Your task to perform on an android device: turn on showing notifications on the lock screen Image 0: 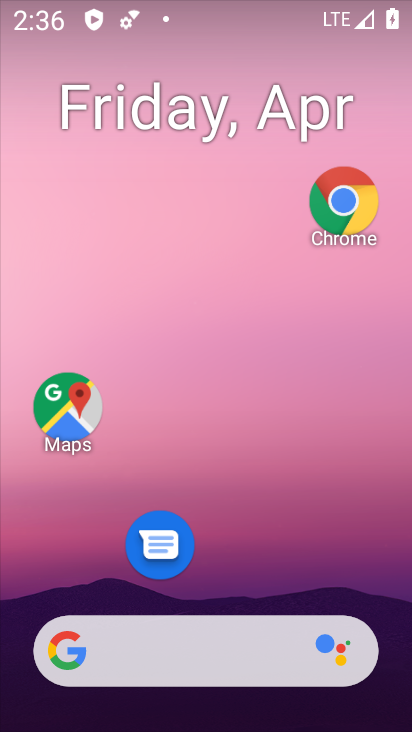
Step 0: click (250, 364)
Your task to perform on an android device: turn on showing notifications on the lock screen Image 1: 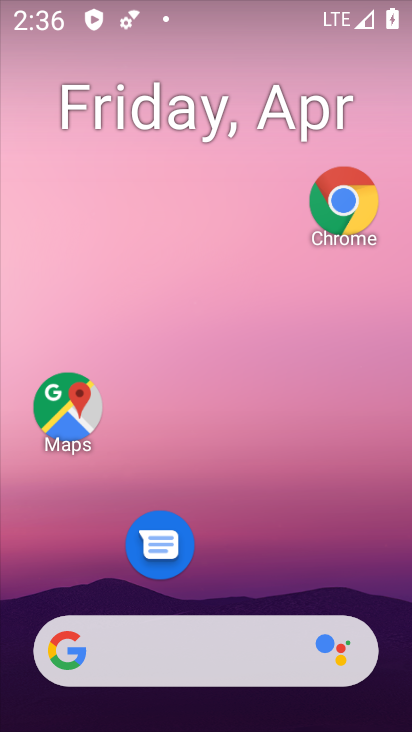
Step 1: drag from (227, 565) to (302, 21)
Your task to perform on an android device: turn on showing notifications on the lock screen Image 2: 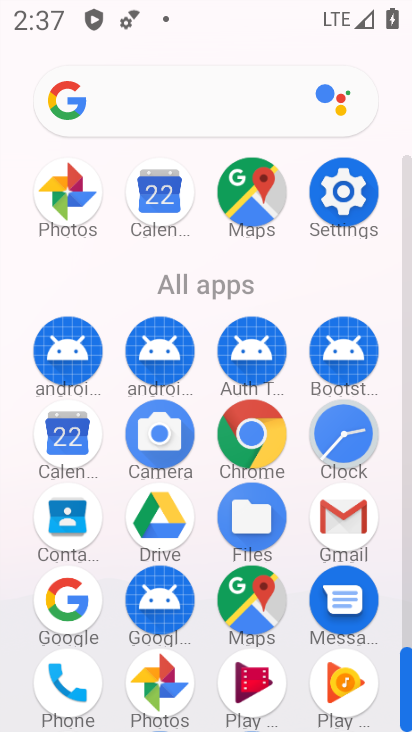
Step 2: click (346, 209)
Your task to perform on an android device: turn on showing notifications on the lock screen Image 3: 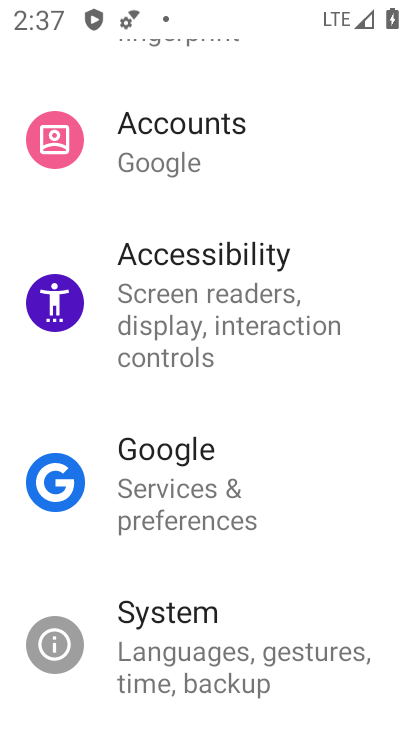
Step 3: press home button
Your task to perform on an android device: turn on showing notifications on the lock screen Image 4: 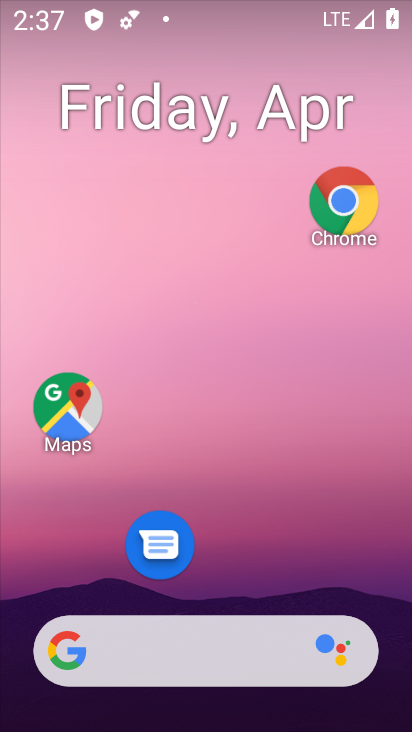
Step 4: drag from (226, 568) to (293, 76)
Your task to perform on an android device: turn on showing notifications on the lock screen Image 5: 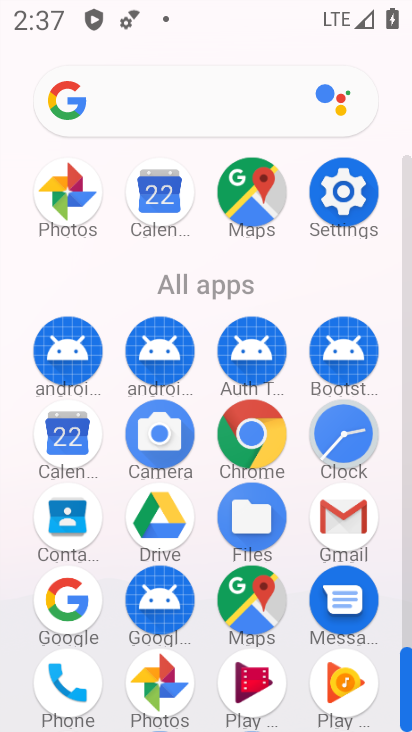
Step 5: click (346, 190)
Your task to perform on an android device: turn on showing notifications on the lock screen Image 6: 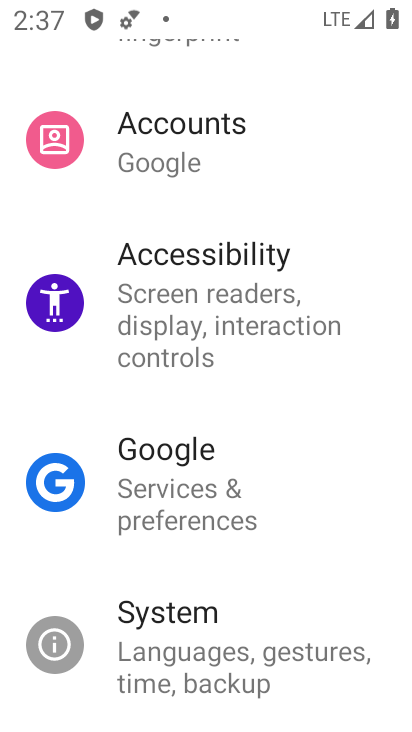
Step 6: drag from (270, 274) to (229, 653)
Your task to perform on an android device: turn on showing notifications on the lock screen Image 7: 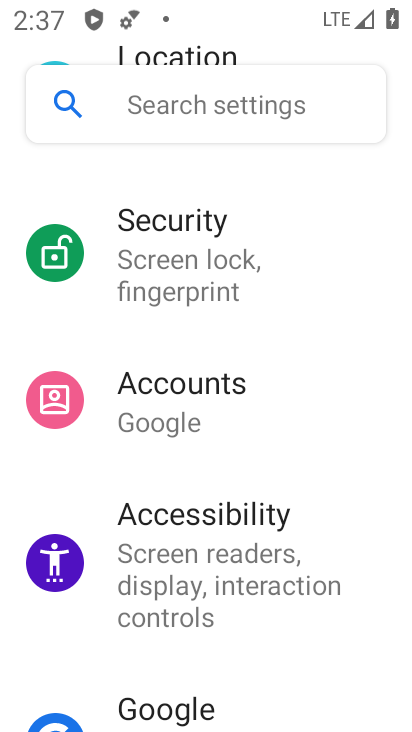
Step 7: drag from (278, 322) to (223, 680)
Your task to perform on an android device: turn on showing notifications on the lock screen Image 8: 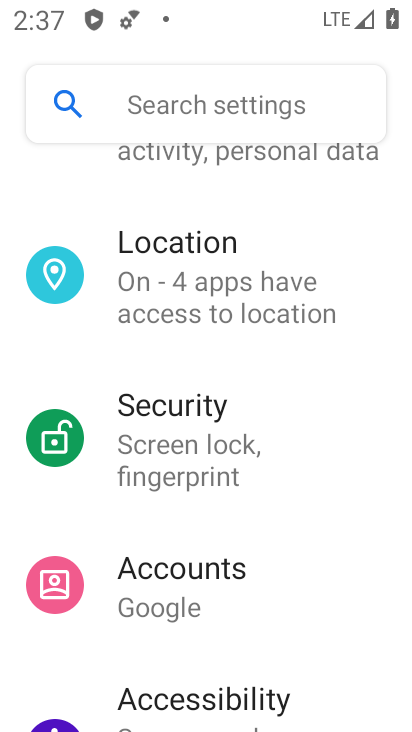
Step 8: drag from (240, 429) to (190, 728)
Your task to perform on an android device: turn on showing notifications on the lock screen Image 9: 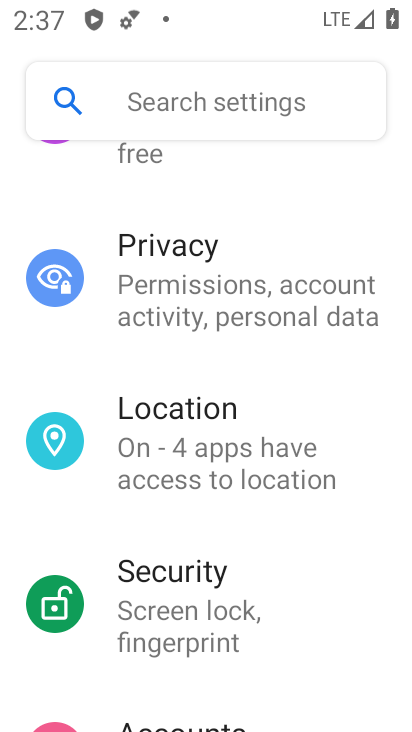
Step 9: drag from (212, 339) to (193, 596)
Your task to perform on an android device: turn on showing notifications on the lock screen Image 10: 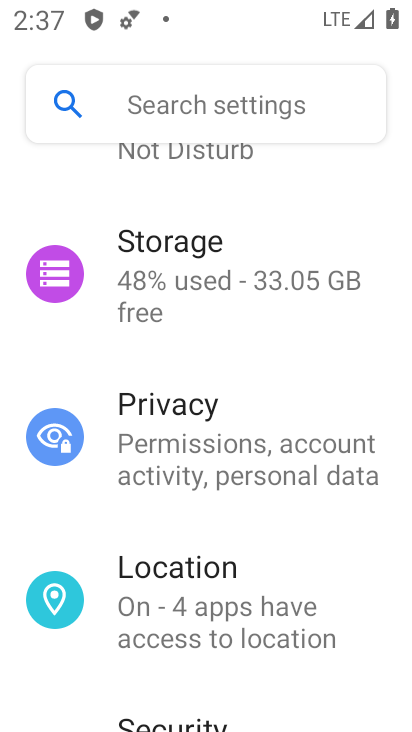
Step 10: drag from (211, 259) to (191, 646)
Your task to perform on an android device: turn on showing notifications on the lock screen Image 11: 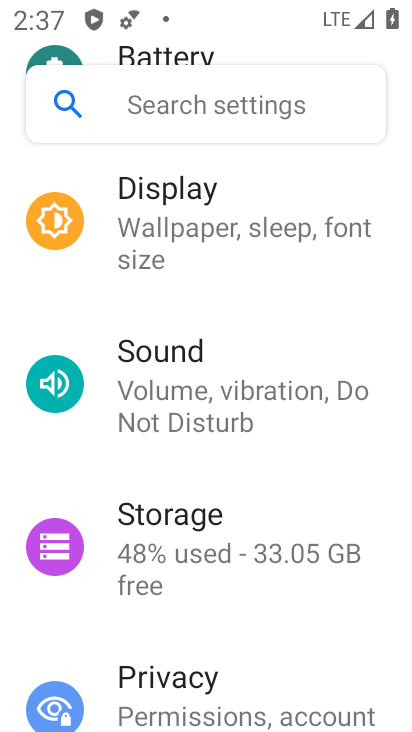
Step 11: drag from (222, 324) to (191, 731)
Your task to perform on an android device: turn on showing notifications on the lock screen Image 12: 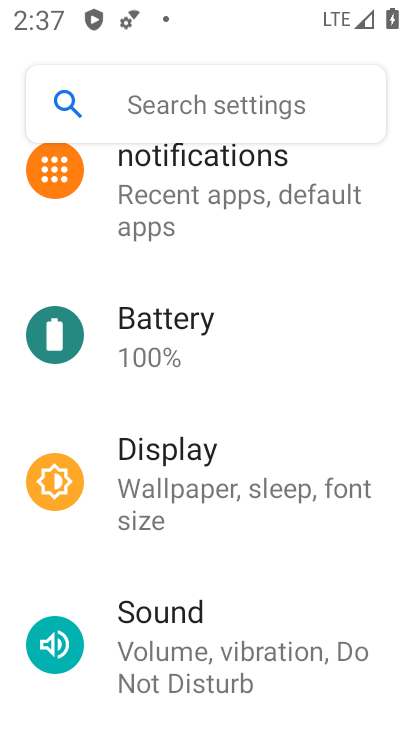
Step 12: click (197, 221)
Your task to perform on an android device: turn on showing notifications on the lock screen Image 13: 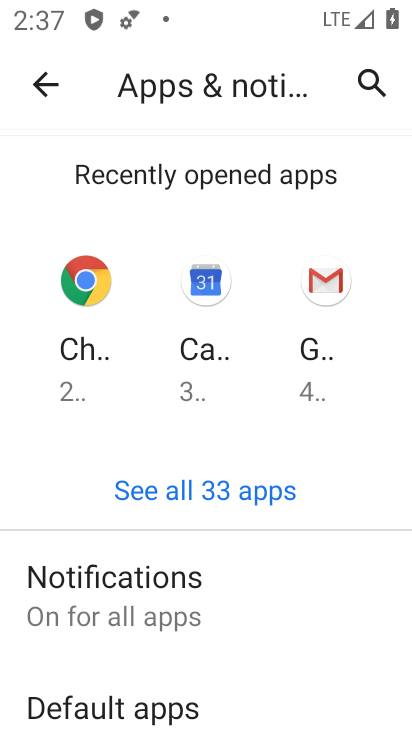
Step 13: click (130, 590)
Your task to perform on an android device: turn on showing notifications on the lock screen Image 14: 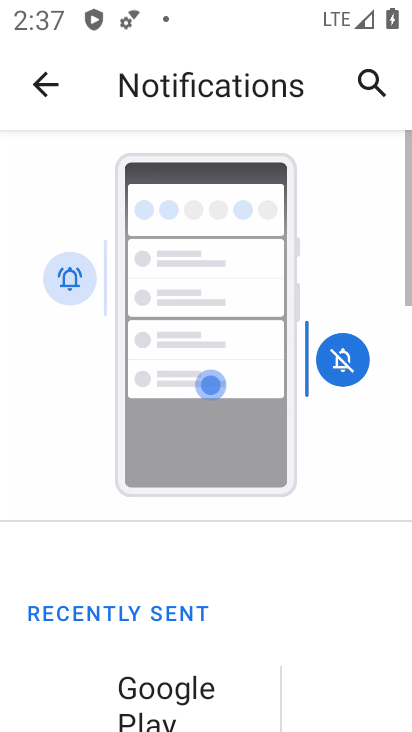
Step 14: drag from (163, 597) to (255, 231)
Your task to perform on an android device: turn on showing notifications on the lock screen Image 15: 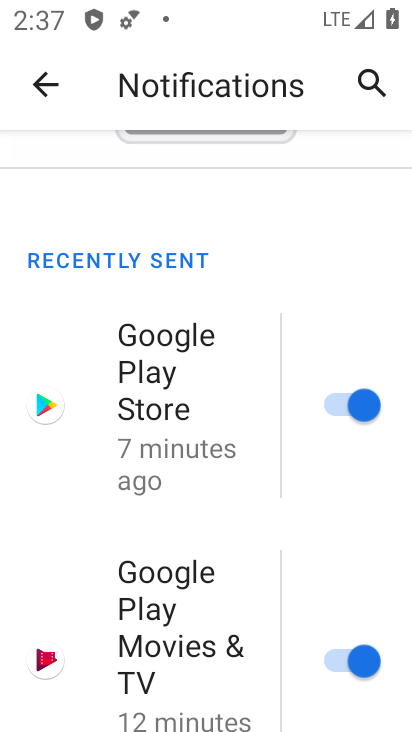
Step 15: drag from (152, 634) to (291, 7)
Your task to perform on an android device: turn on showing notifications on the lock screen Image 16: 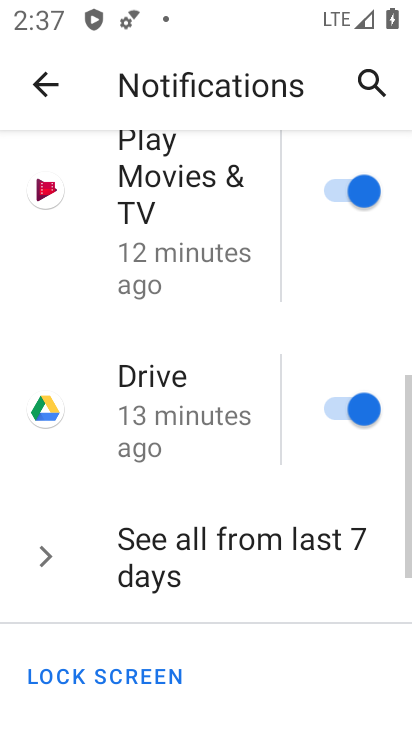
Step 16: drag from (128, 576) to (184, 102)
Your task to perform on an android device: turn on showing notifications on the lock screen Image 17: 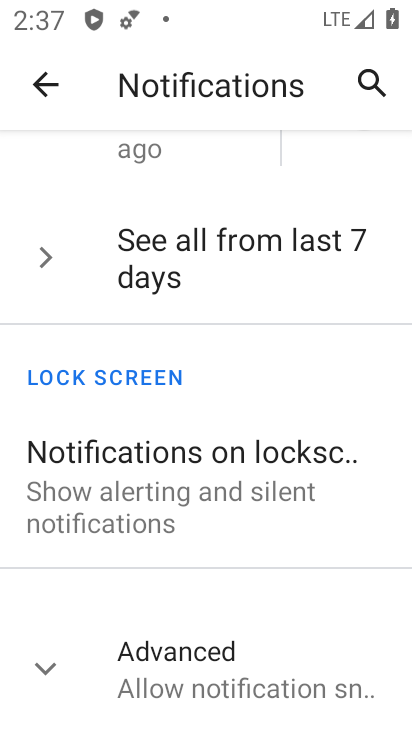
Step 17: click (122, 519)
Your task to perform on an android device: turn on showing notifications on the lock screen Image 18: 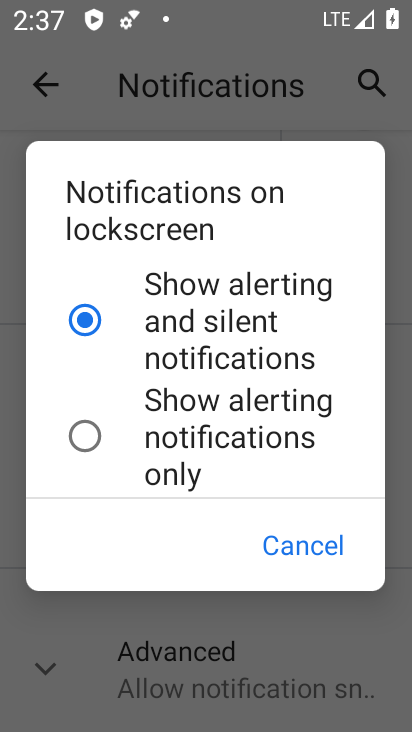
Step 18: task complete